Your task to perform on an android device: move an email to a new category in the gmail app Image 0: 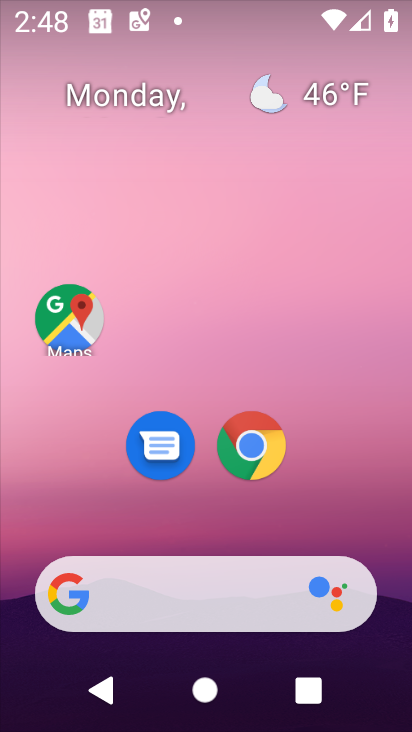
Step 0: drag from (316, 509) to (317, 125)
Your task to perform on an android device: move an email to a new category in the gmail app Image 1: 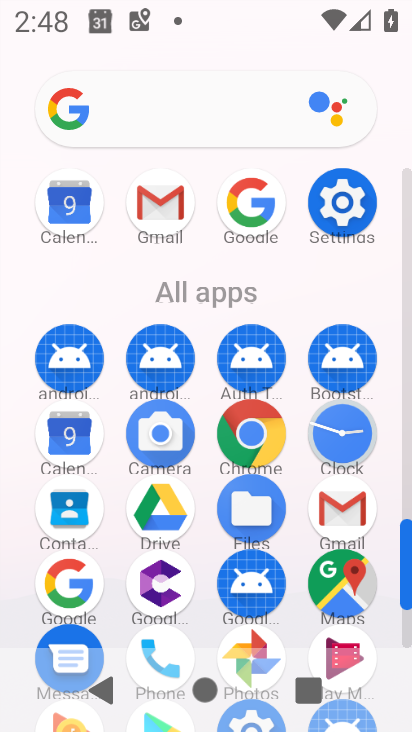
Step 1: click (350, 506)
Your task to perform on an android device: move an email to a new category in the gmail app Image 2: 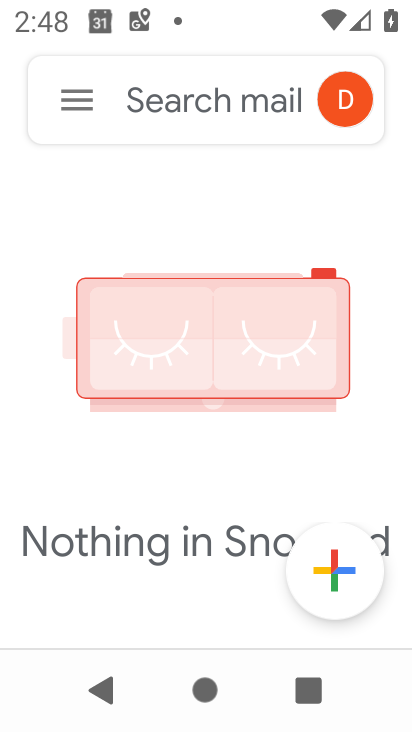
Step 2: click (59, 98)
Your task to perform on an android device: move an email to a new category in the gmail app Image 3: 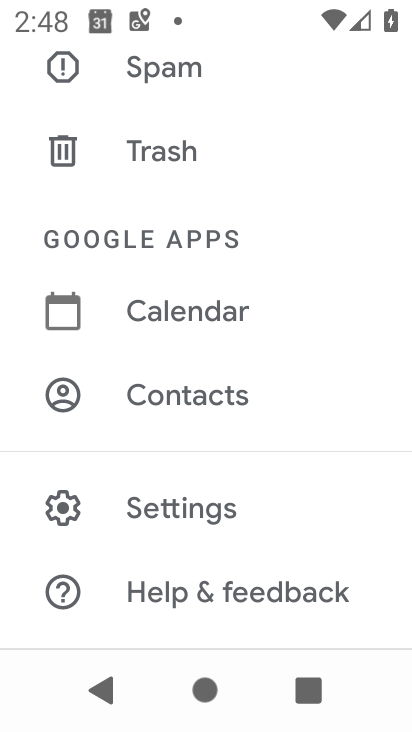
Step 3: drag from (202, 127) to (231, 509)
Your task to perform on an android device: move an email to a new category in the gmail app Image 4: 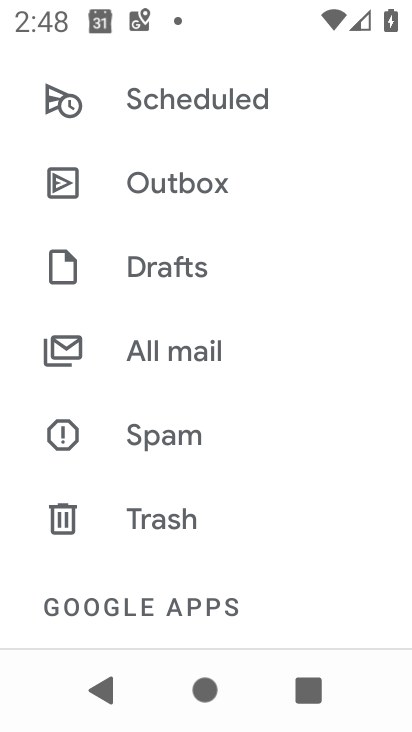
Step 4: drag from (228, 141) to (216, 590)
Your task to perform on an android device: move an email to a new category in the gmail app Image 5: 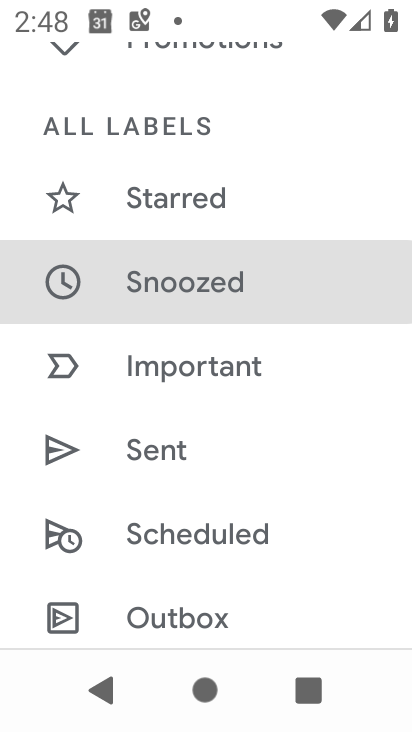
Step 5: drag from (258, 157) to (257, 622)
Your task to perform on an android device: move an email to a new category in the gmail app Image 6: 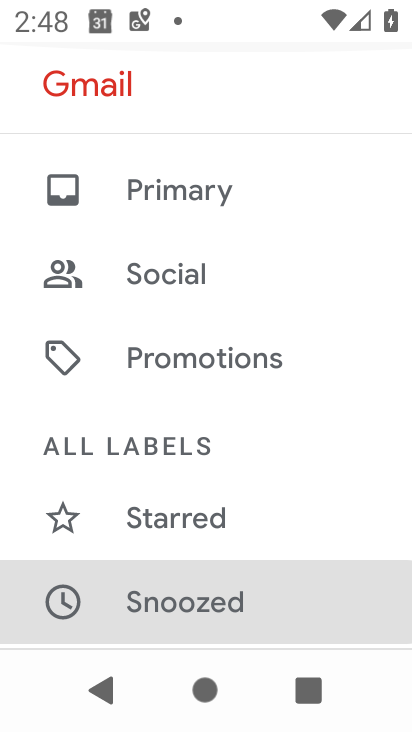
Step 6: click (228, 196)
Your task to perform on an android device: move an email to a new category in the gmail app Image 7: 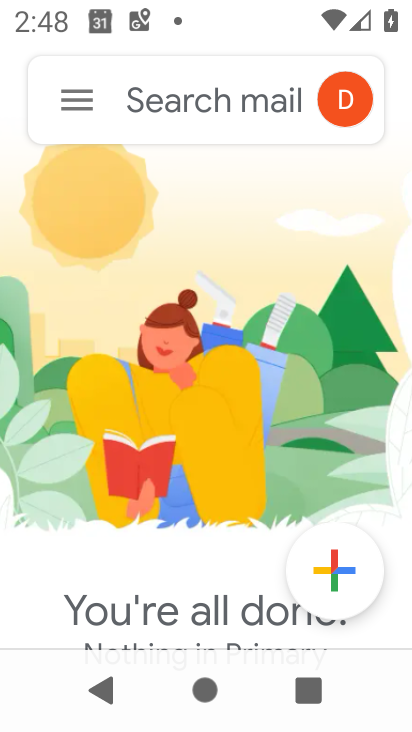
Step 7: task complete